Your task to perform on an android device: Go to settings Image 0: 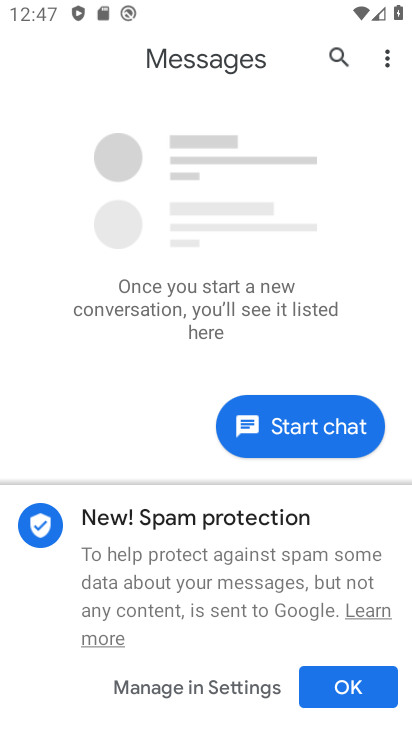
Step 0: press home button
Your task to perform on an android device: Go to settings Image 1: 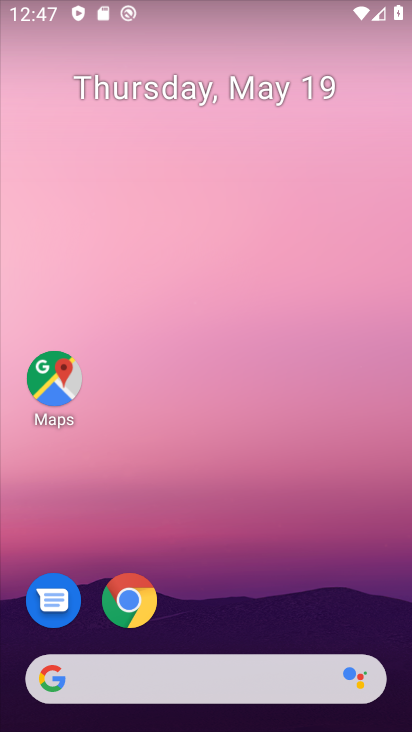
Step 1: drag from (288, 564) to (283, 56)
Your task to perform on an android device: Go to settings Image 2: 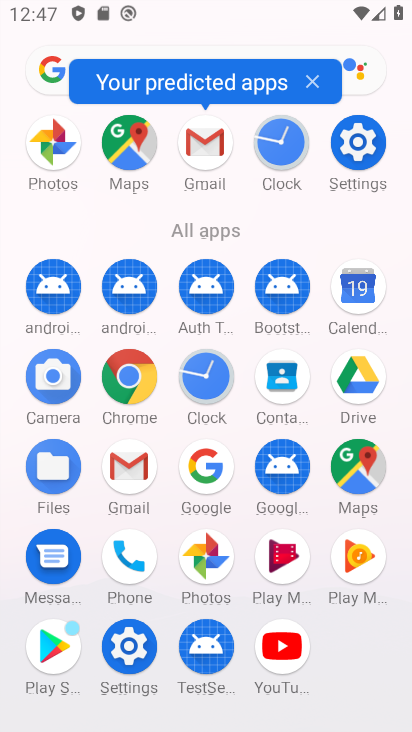
Step 2: click (345, 145)
Your task to perform on an android device: Go to settings Image 3: 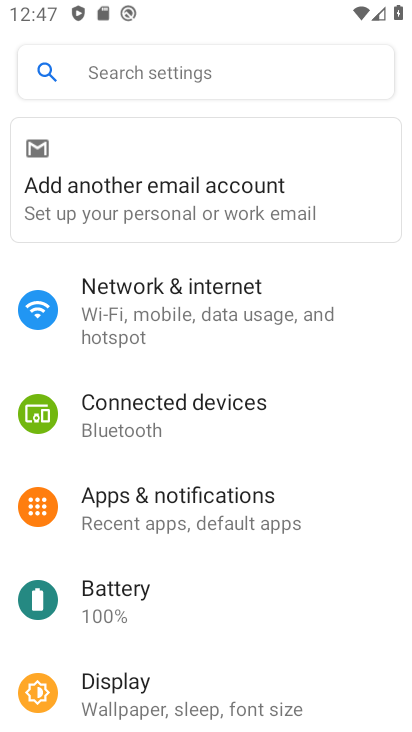
Step 3: task complete